Your task to perform on an android device: Play the last video I watched on Youtube Image 0: 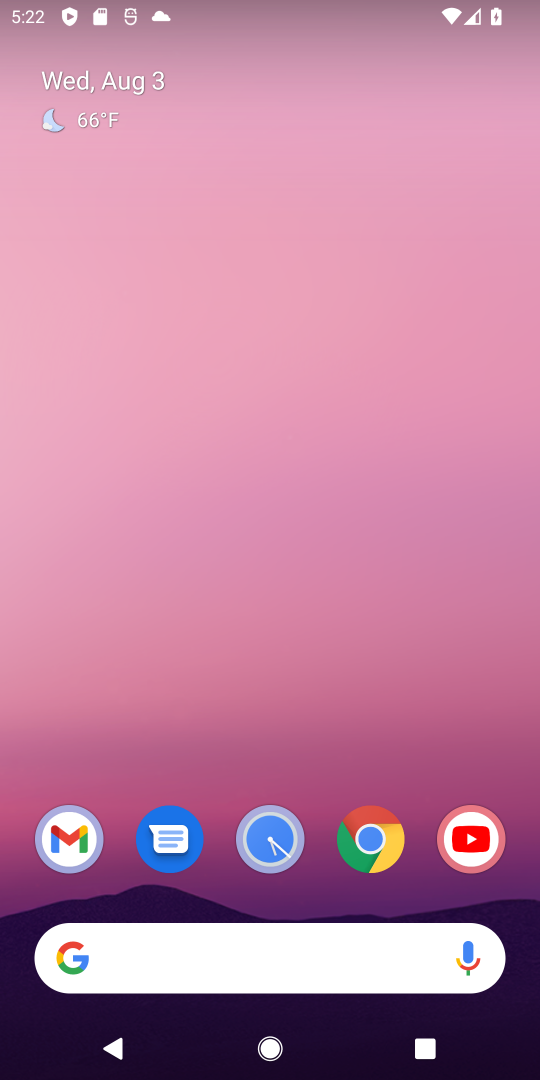
Step 0: click (472, 842)
Your task to perform on an android device: Play the last video I watched on Youtube Image 1: 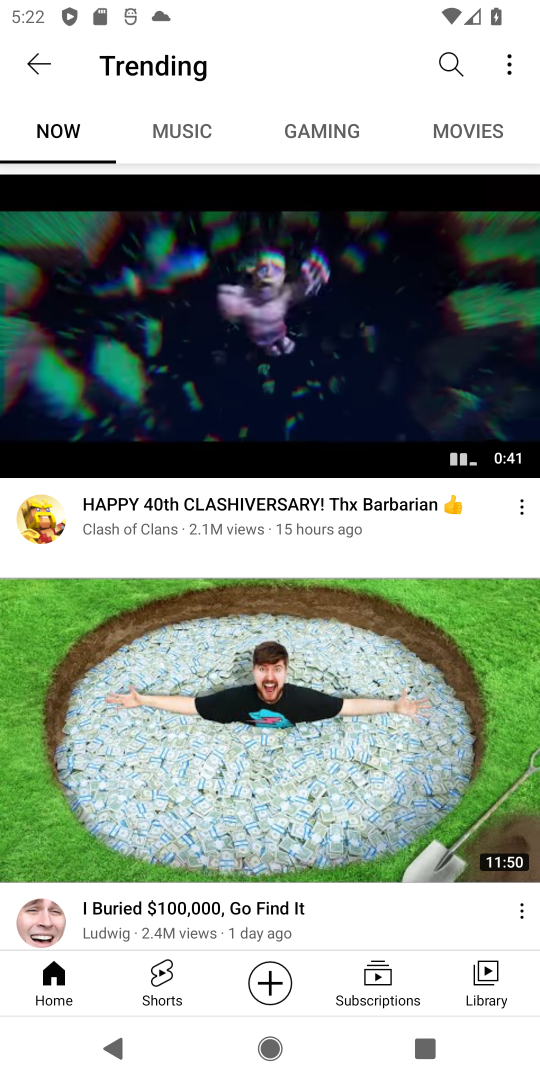
Step 1: click (490, 999)
Your task to perform on an android device: Play the last video I watched on Youtube Image 2: 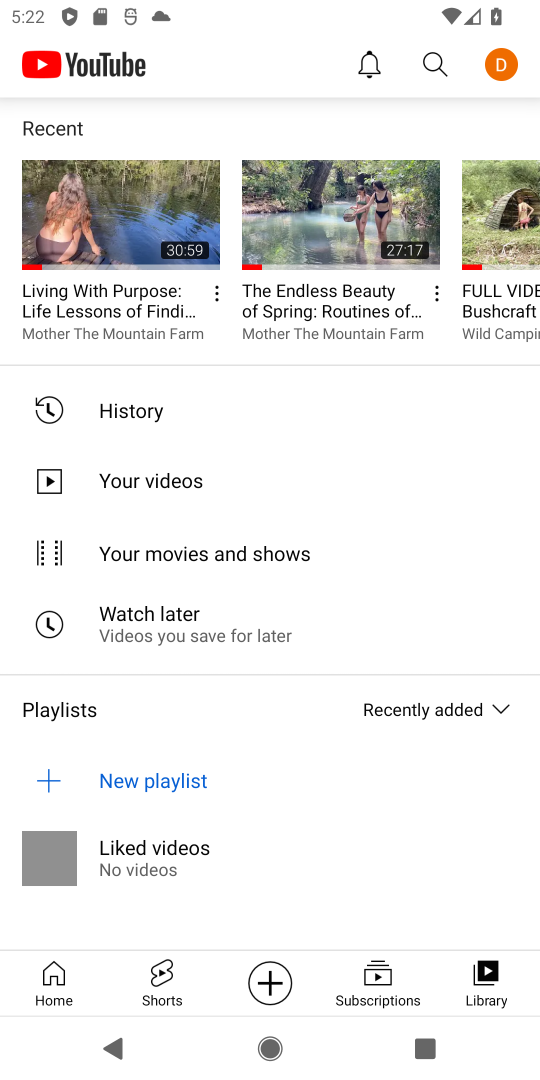
Step 2: click (73, 225)
Your task to perform on an android device: Play the last video I watched on Youtube Image 3: 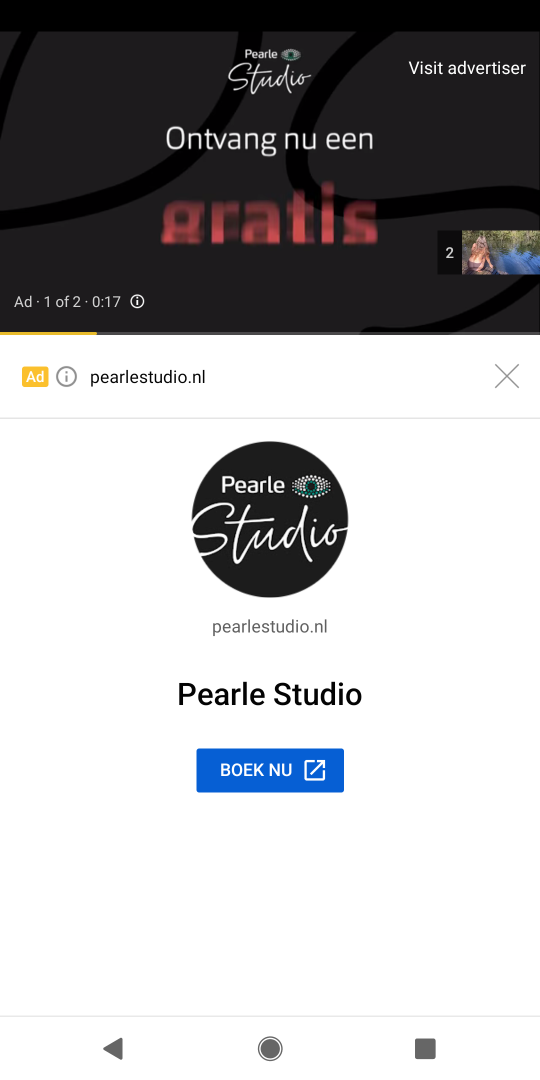
Step 3: click (289, 180)
Your task to perform on an android device: Play the last video I watched on Youtube Image 4: 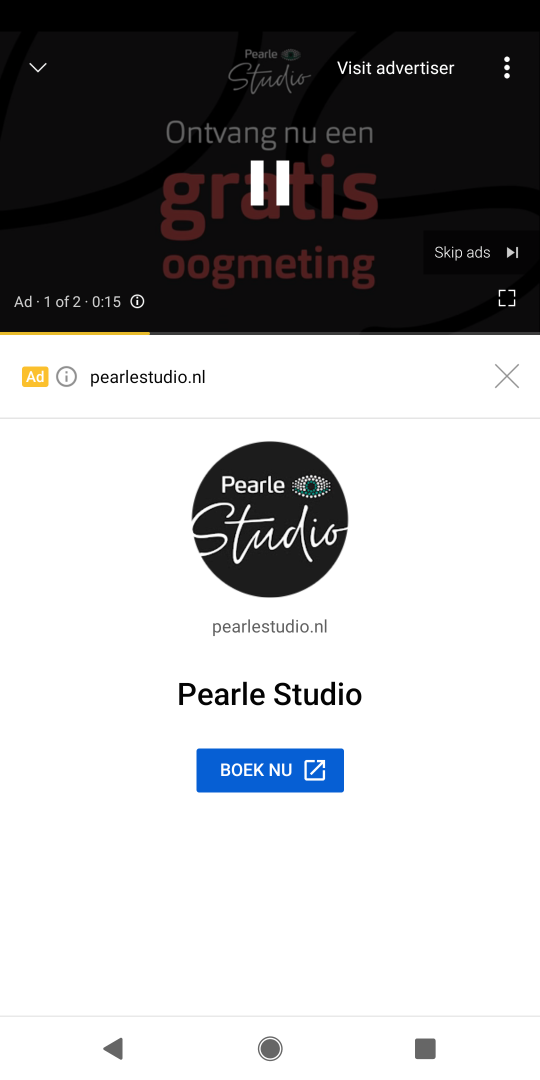
Step 4: click (286, 180)
Your task to perform on an android device: Play the last video I watched on Youtube Image 5: 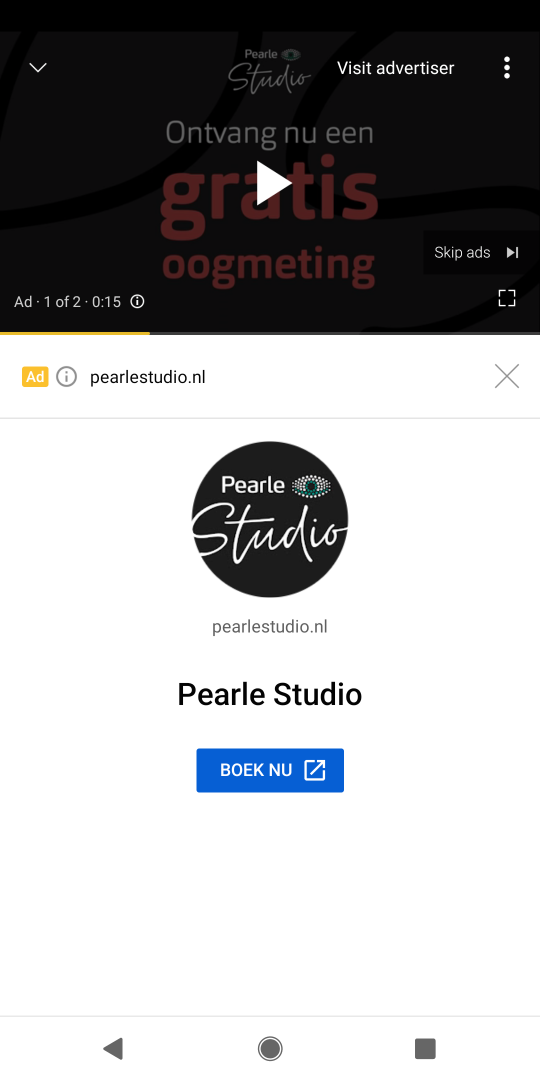
Step 5: task complete